Your task to perform on an android device: Open calendar and show me the third week of next month Image 0: 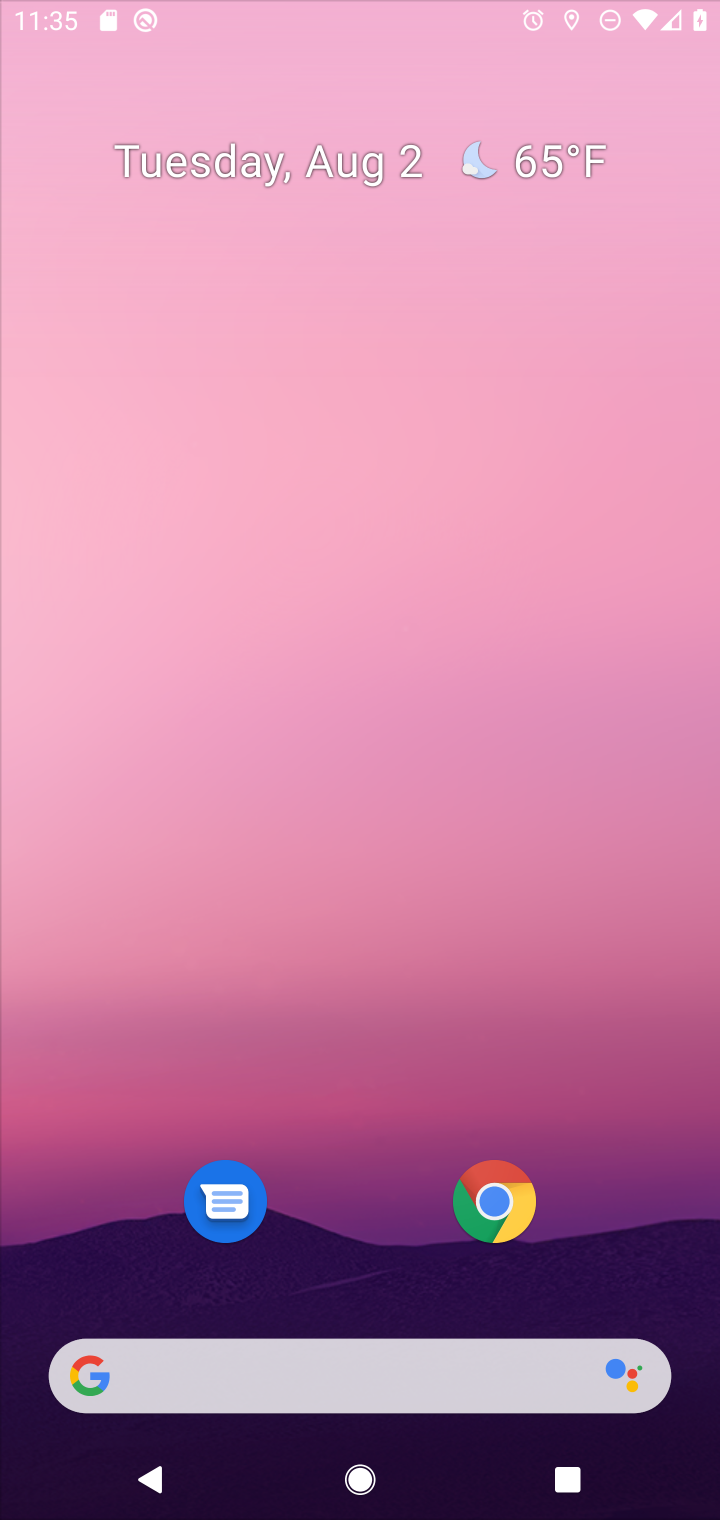
Step 0: press home button
Your task to perform on an android device: Open calendar and show me the third week of next month Image 1: 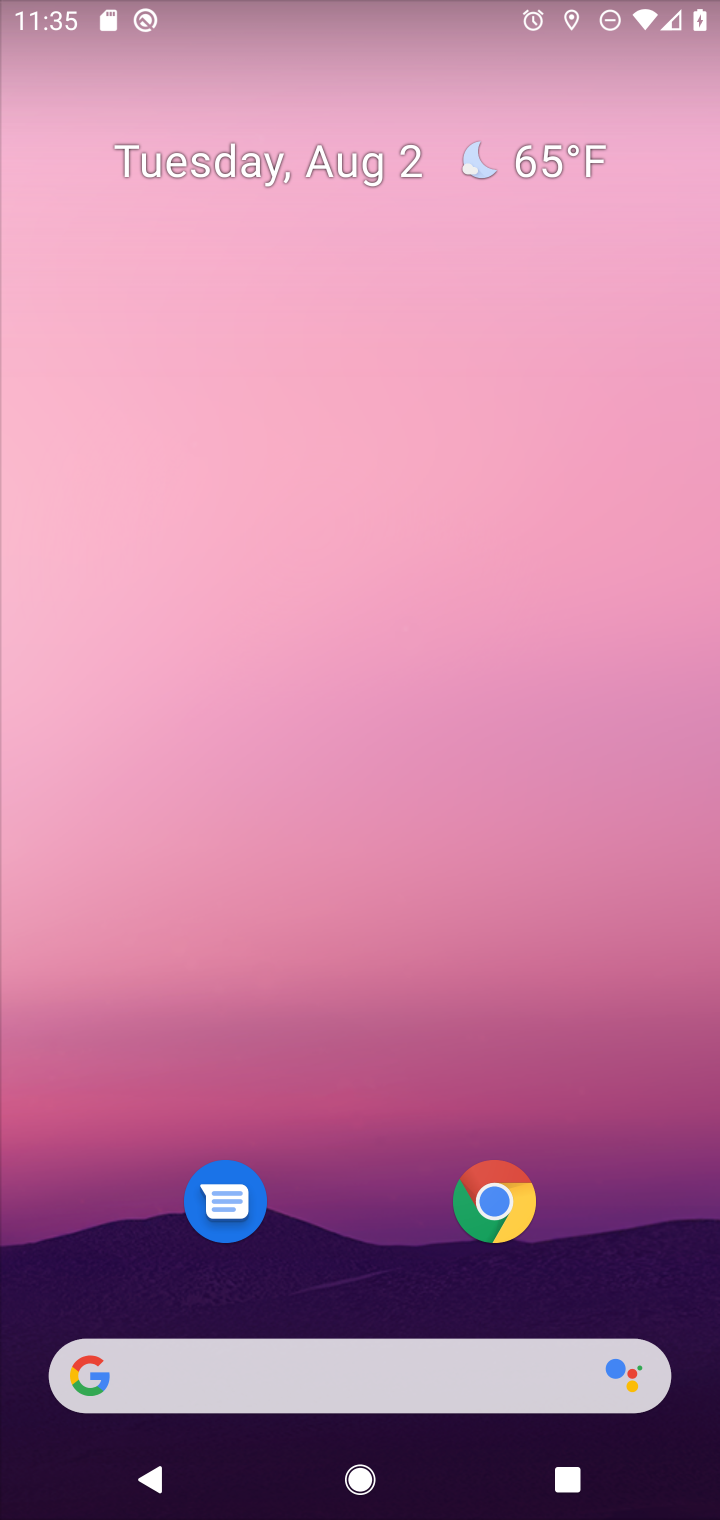
Step 1: drag from (426, 1316) to (431, 26)
Your task to perform on an android device: Open calendar and show me the third week of next month Image 2: 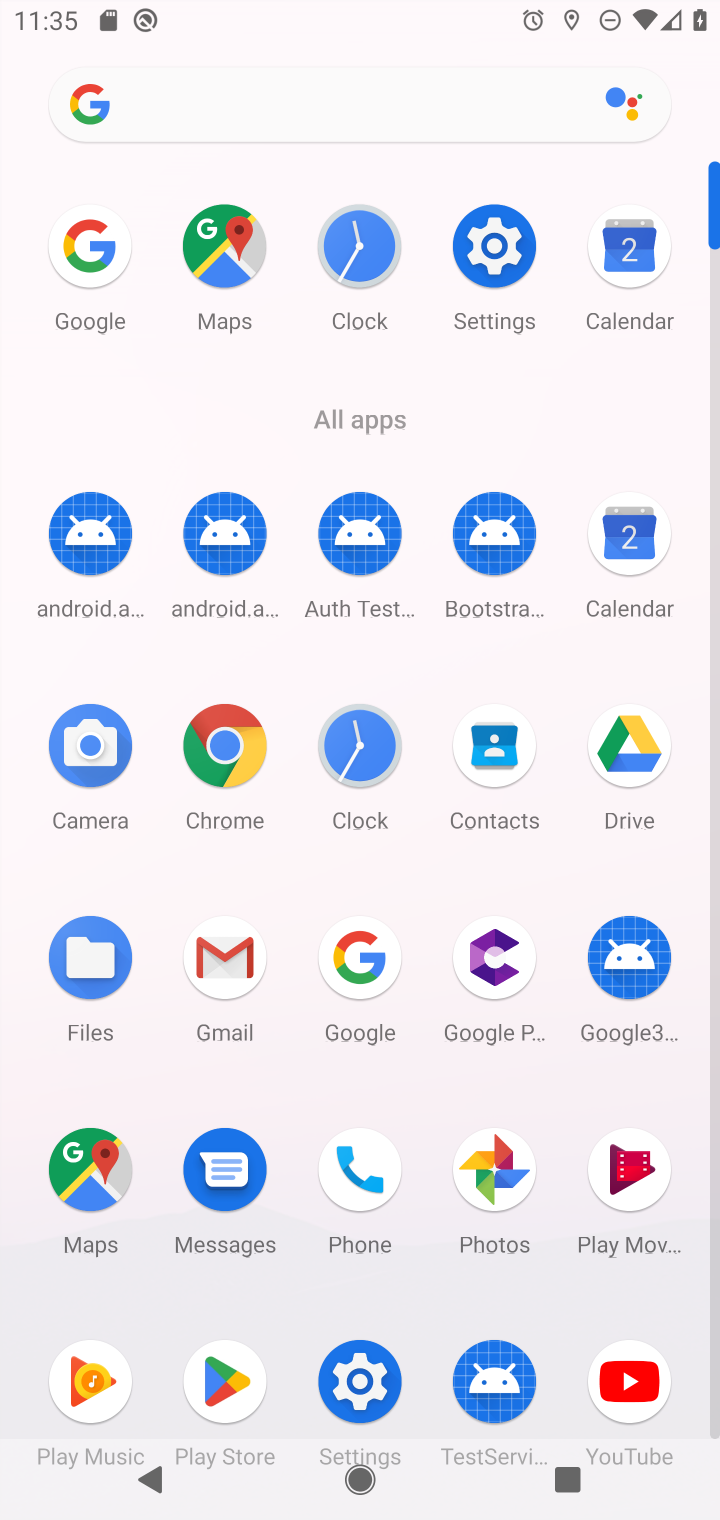
Step 2: click (634, 267)
Your task to perform on an android device: Open calendar and show me the third week of next month Image 3: 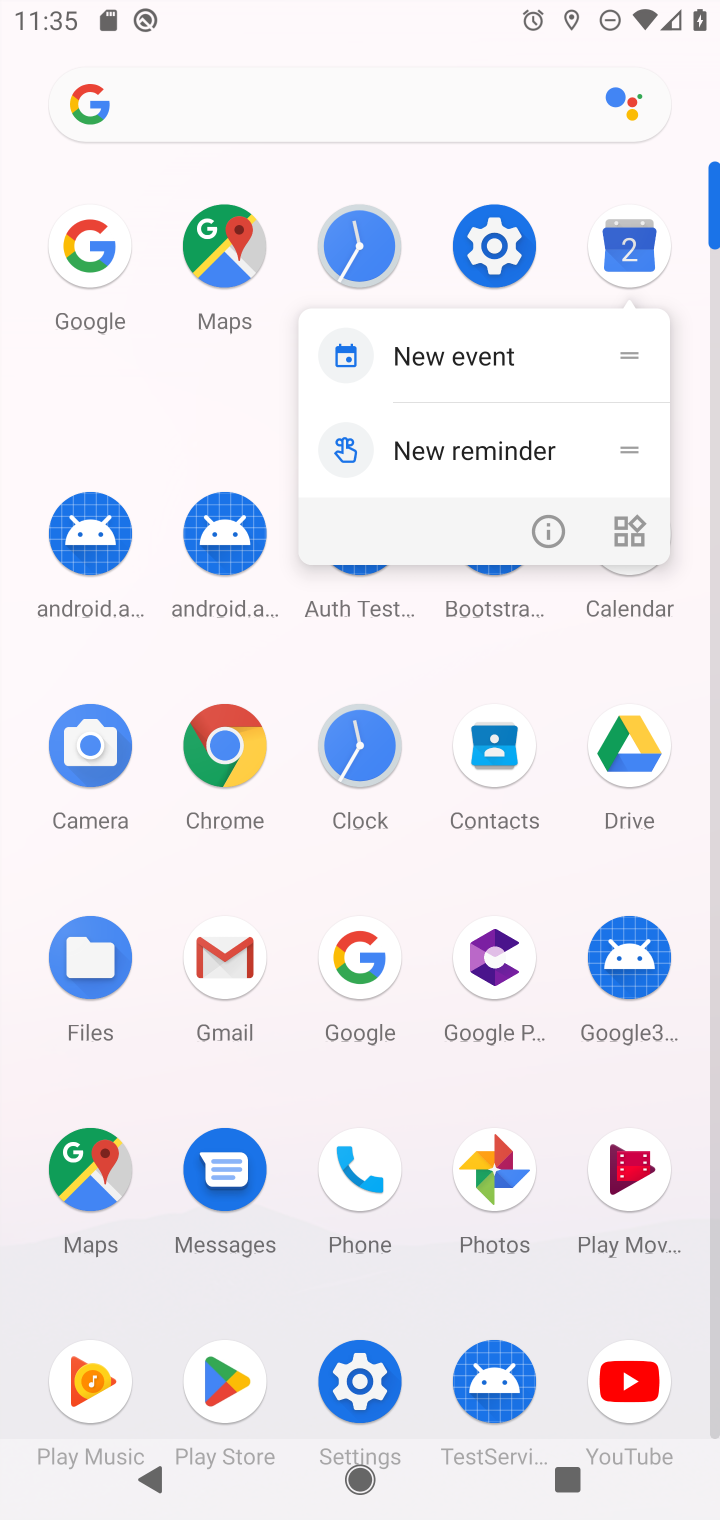
Step 3: click (604, 223)
Your task to perform on an android device: Open calendar and show me the third week of next month Image 4: 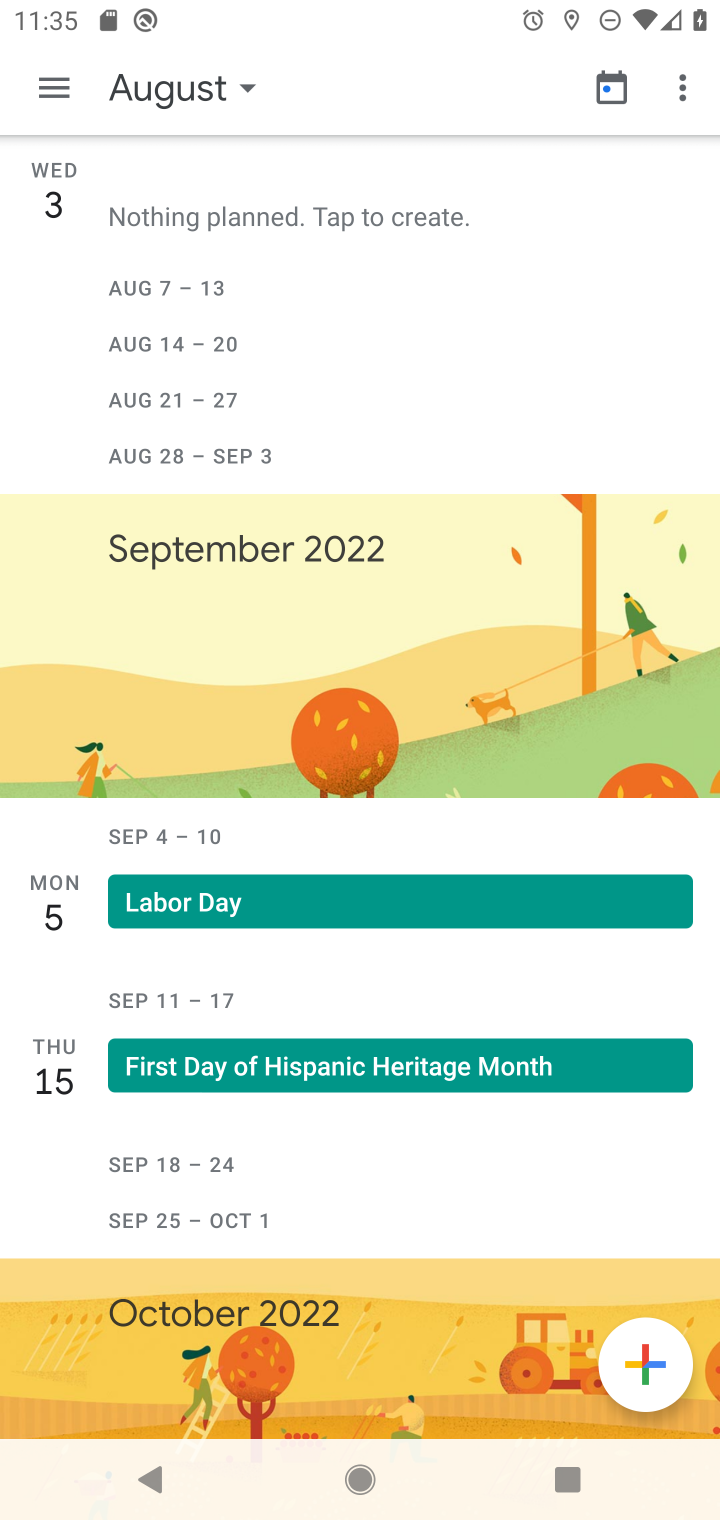
Step 4: click (23, 104)
Your task to perform on an android device: Open calendar and show me the third week of next month Image 5: 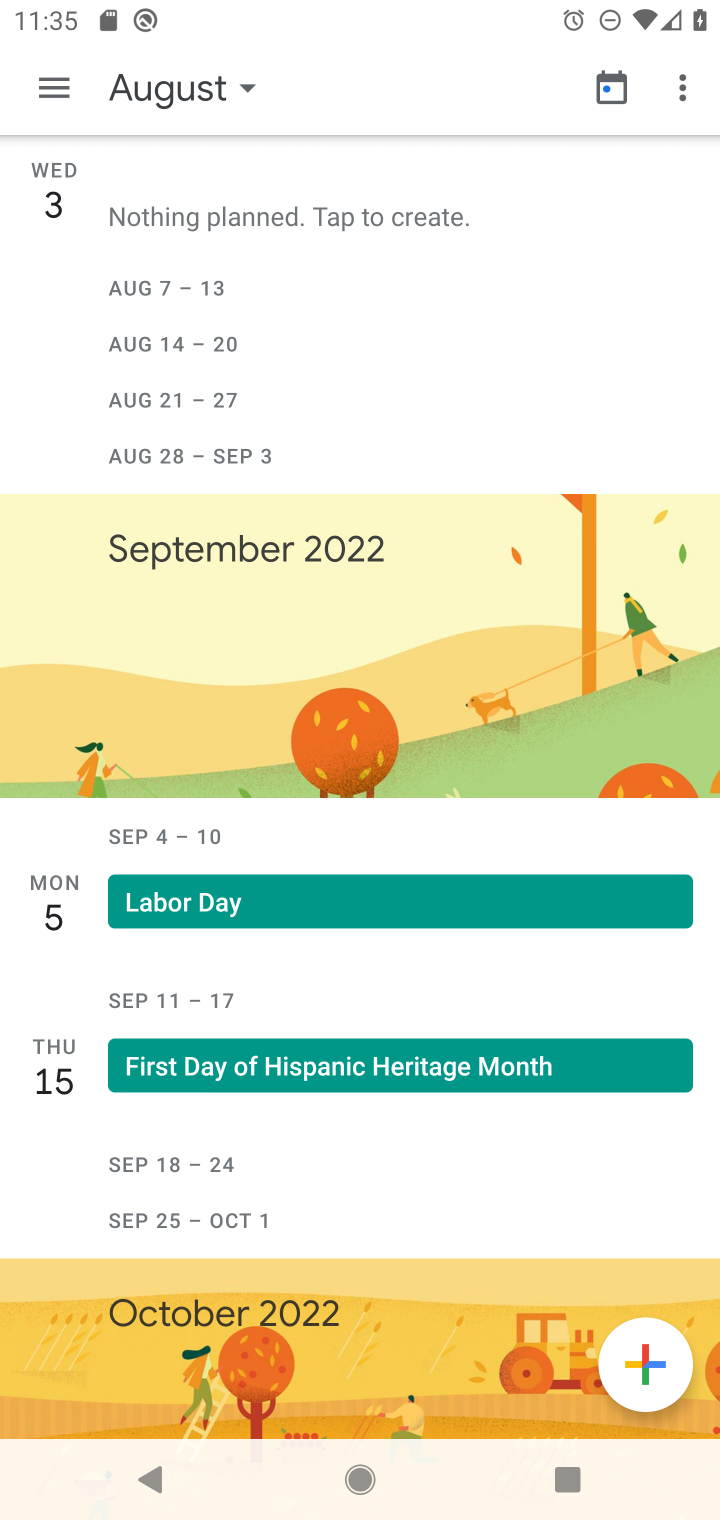
Step 5: click (54, 109)
Your task to perform on an android device: Open calendar and show me the third week of next month Image 6: 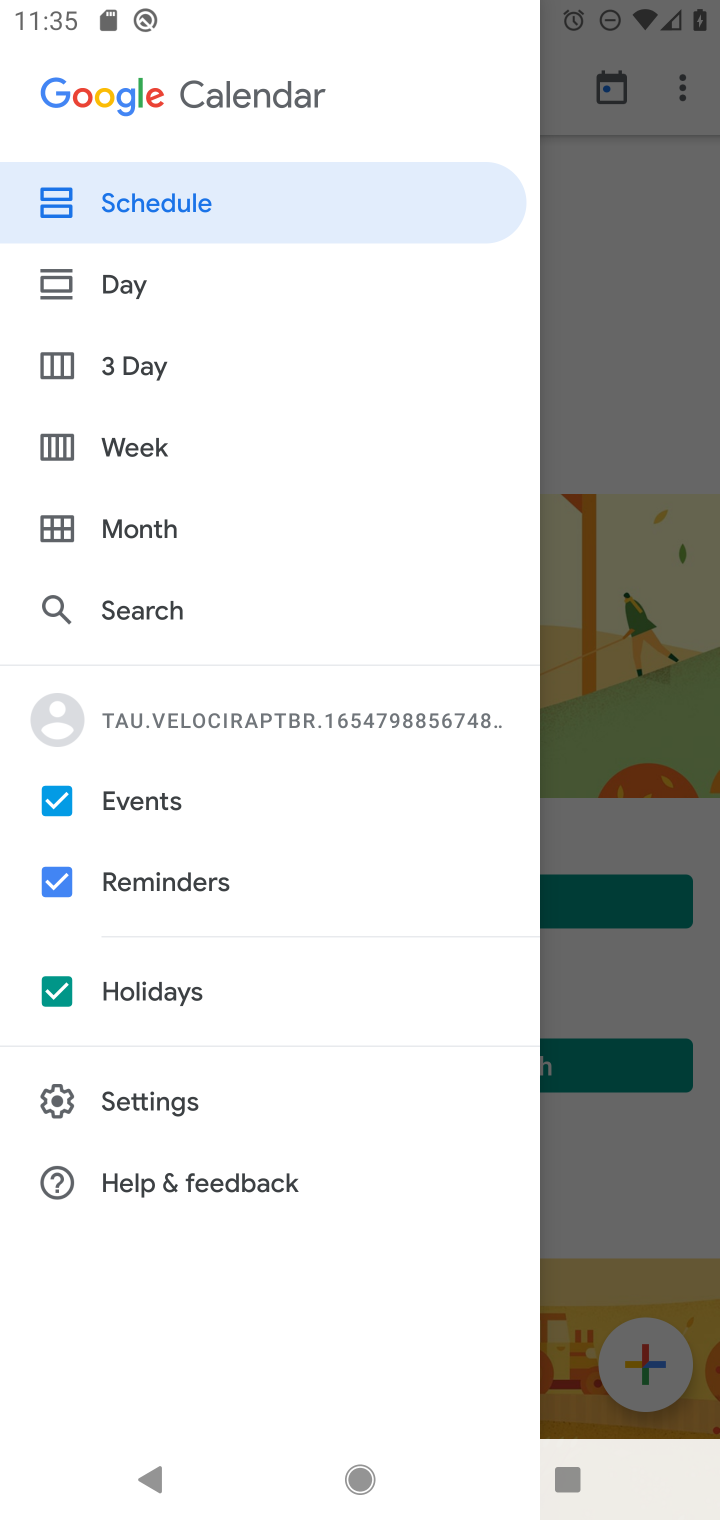
Step 6: click (148, 429)
Your task to perform on an android device: Open calendar and show me the third week of next month Image 7: 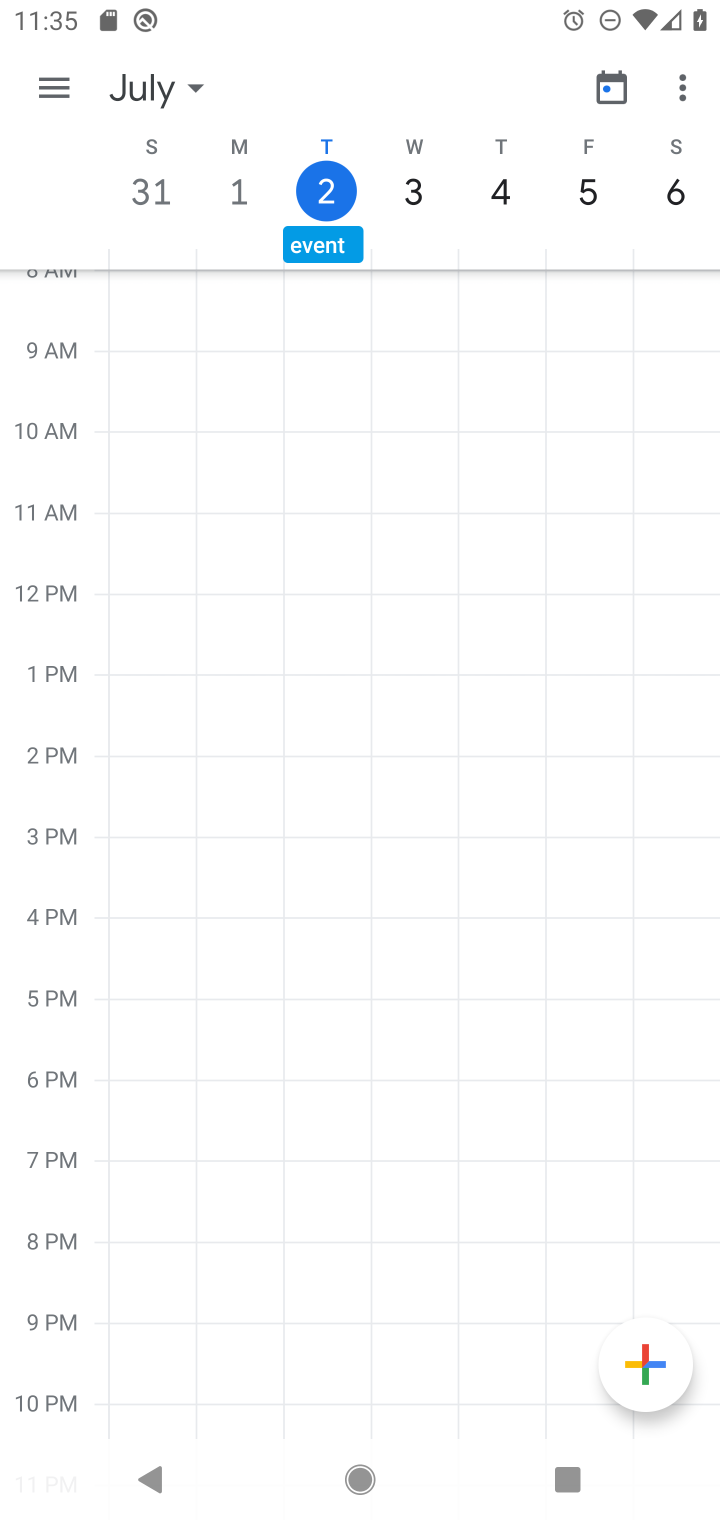
Step 7: task complete